Your task to perform on an android device: check battery use Image 0: 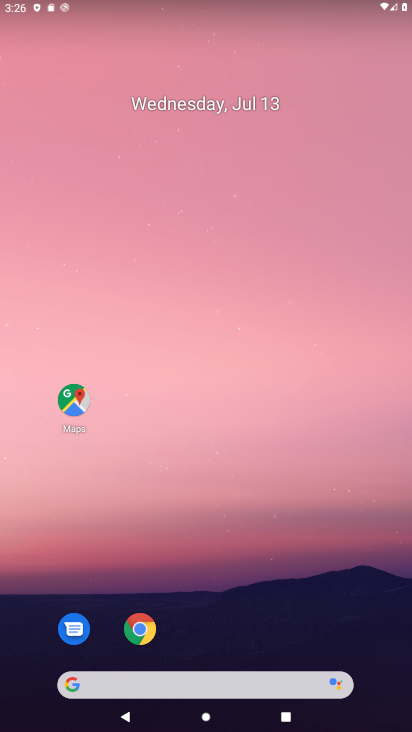
Step 0: press home button
Your task to perform on an android device: check battery use Image 1: 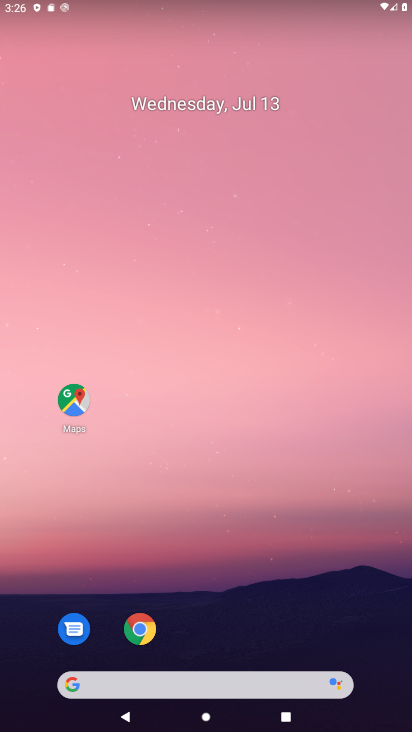
Step 1: drag from (305, 569) to (334, 7)
Your task to perform on an android device: check battery use Image 2: 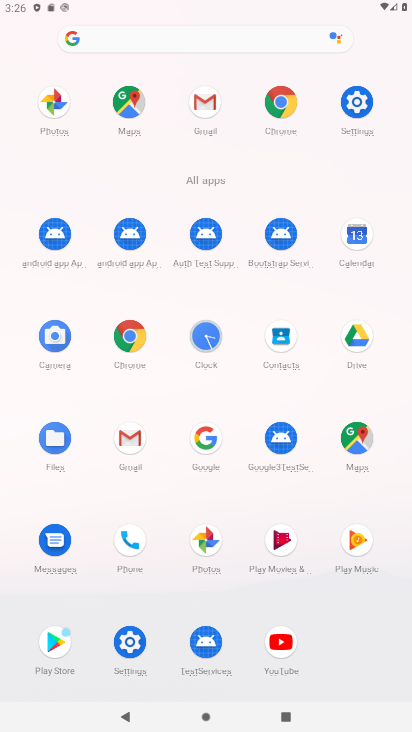
Step 2: click (350, 100)
Your task to perform on an android device: check battery use Image 3: 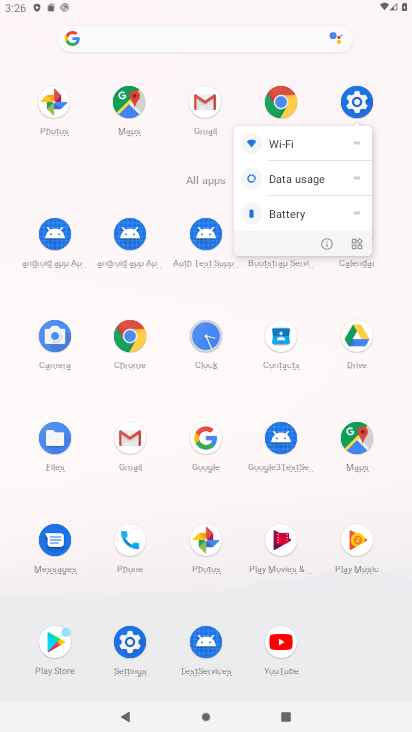
Step 3: click (350, 100)
Your task to perform on an android device: check battery use Image 4: 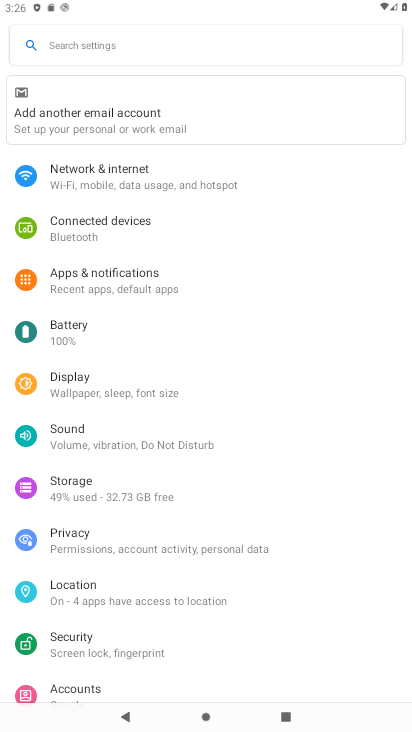
Step 4: click (61, 326)
Your task to perform on an android device: check battery use Image 5: 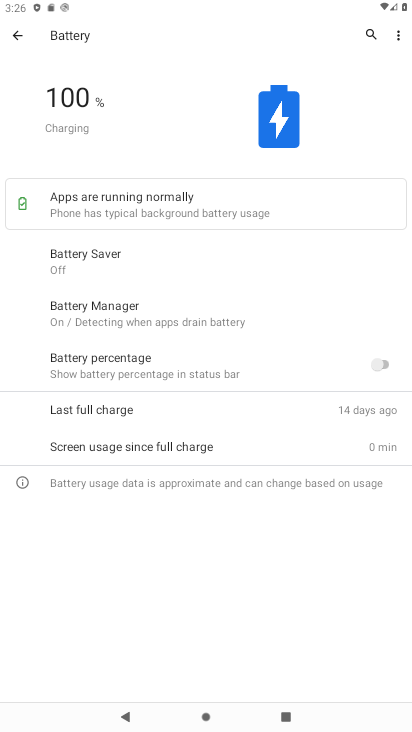
Step 5: task complete